Your task to perform on an android device: clear history in the chrome app Image 0: 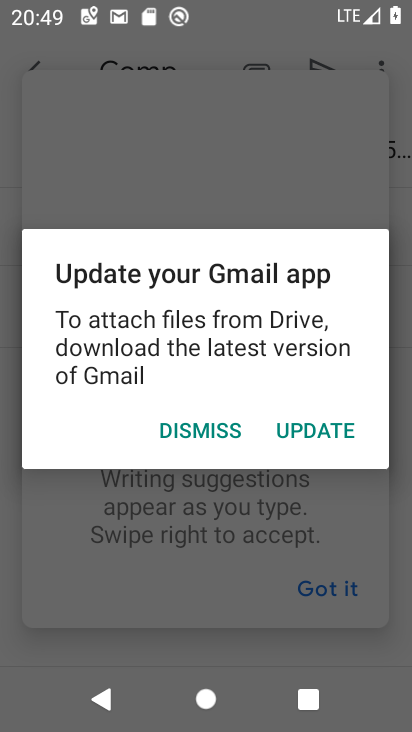
Step 0: press back button
Your task to perform on an android device: clear history in the chrome app Image 1: 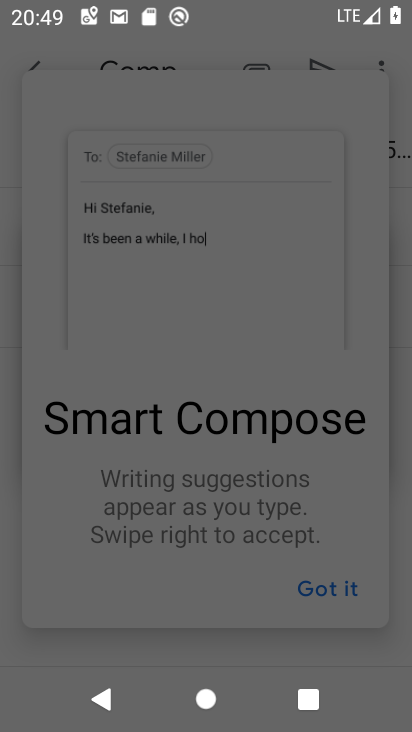
Step 1: press back button
Your task to perform on an android device: clear history in the chrome app Image 2: 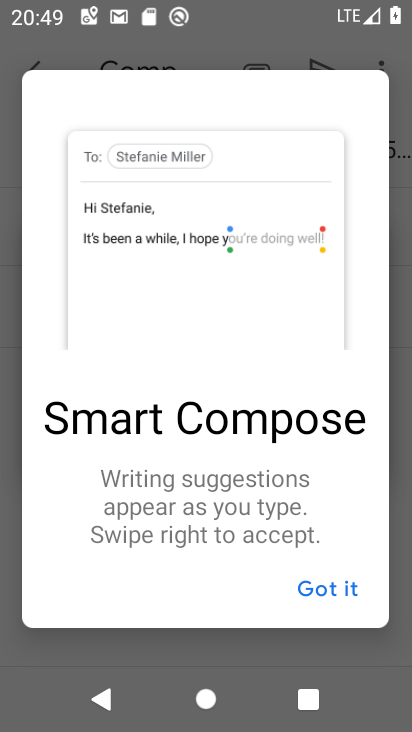
Step 2: press back button
Your task to perform on an android device: clear history in the chrome app Image 3: 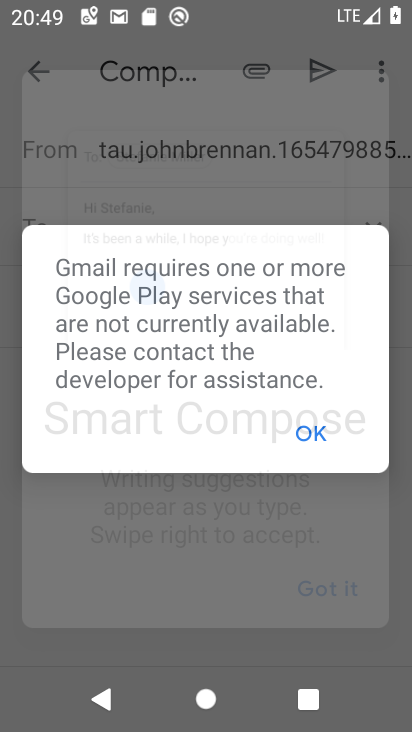
Step 3: press back button
Your task to perform on an android device: clear history in the chrome app Image 4: 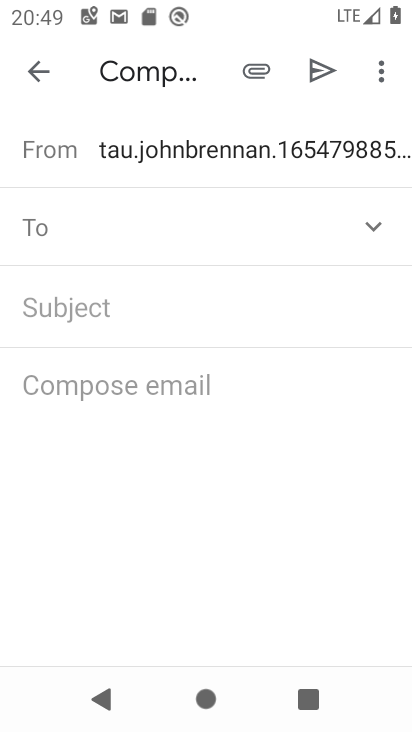
Step 4: press home button
Your task to perform on an android device: clear history in the chrome app Image 5: 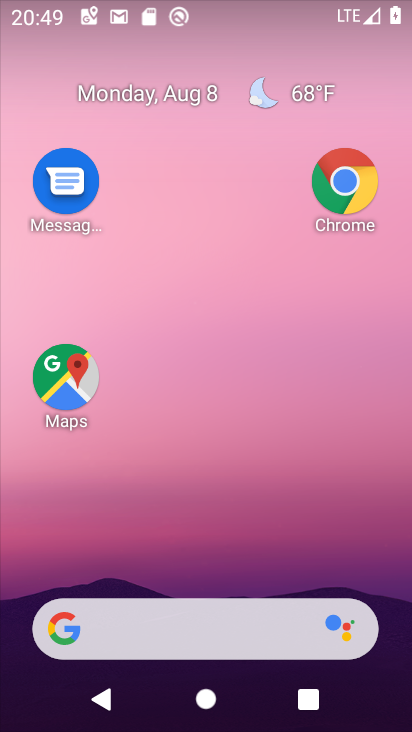
Step 5: drag from (178, 567) to (302, 67)
Your task to perform on an android device: clear history in the chrome app Image 6: 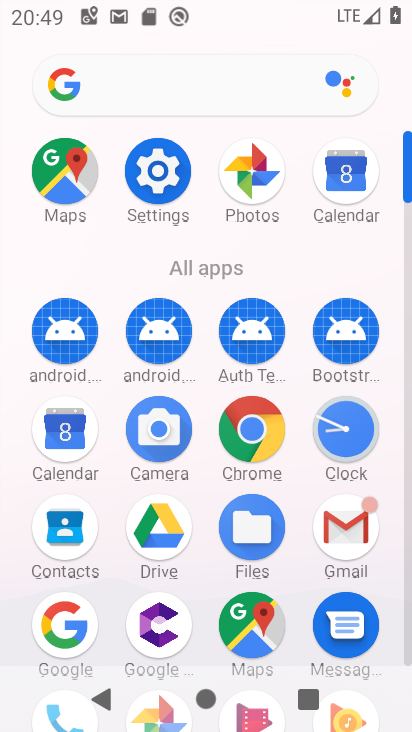
Step 6: click (244, 419)
Your task to perform on an android device: clear history in the chrome app Image 7: 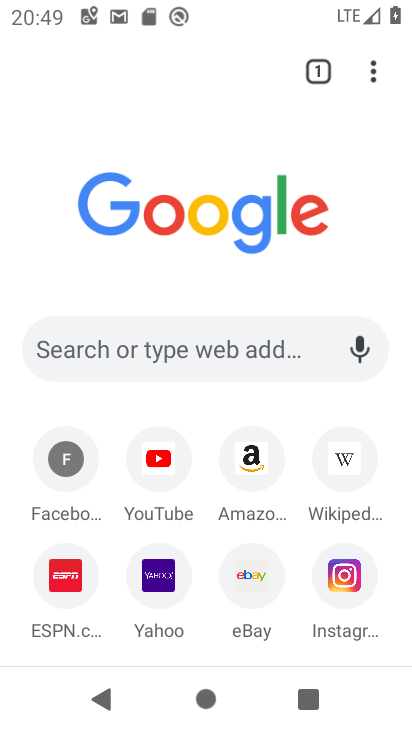
Step 7: click (378, 68)
Your task to perform on an android device: clear history in the chrome app Image 8: 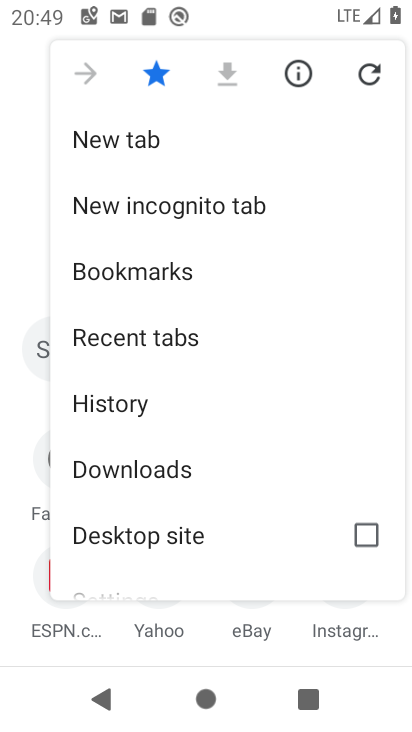
Step 8: click (64, 428)
Your task to perform on an android device: clear history in the chrome app Image 9: 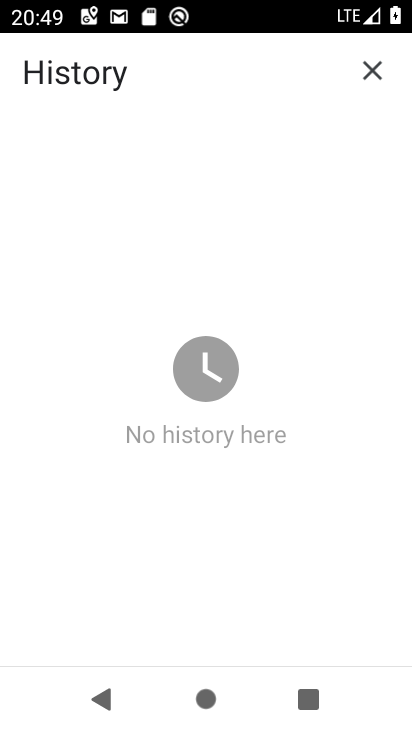
Step 9: task complete